Your task to perform on an android device: Show me the alarms in the clock app Image 0: 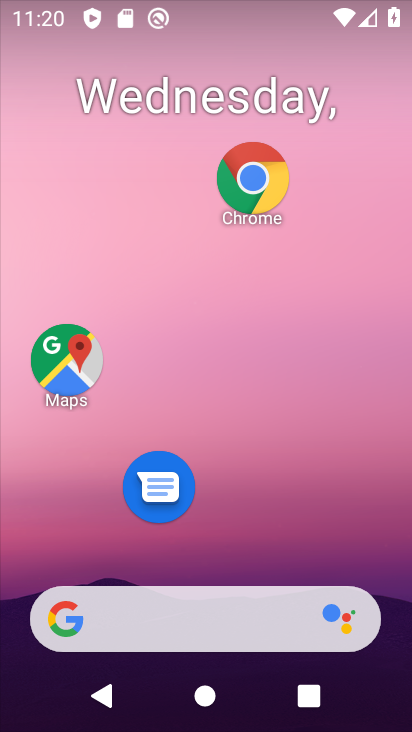
Step 0: drag from (307, 390) to (342, 75)
Your task to perform on an android device: Show me the alarms in the clock app Image 1: 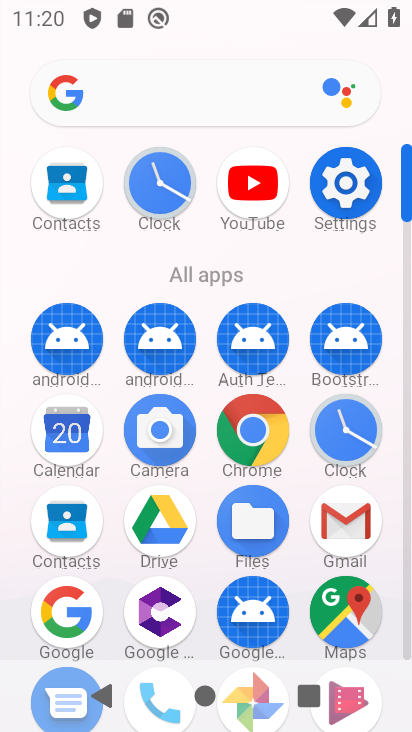
Step 1: click (349, 409)
Your task to perform on an android device: Show me the alarms in the clock app Image 2: 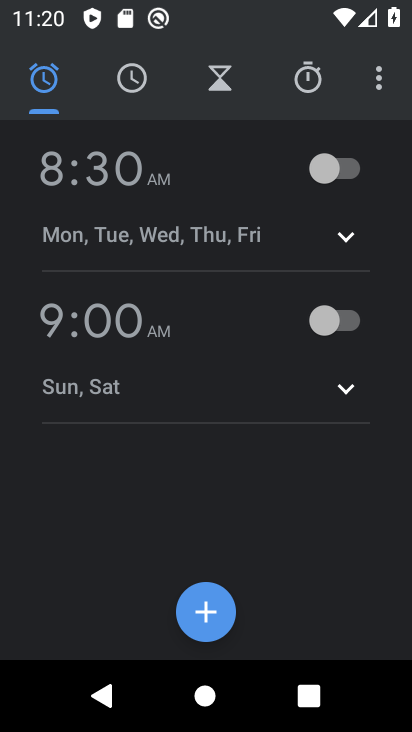
Step 2: task complete